Your task to perform on an android device: Open the map Image 0: 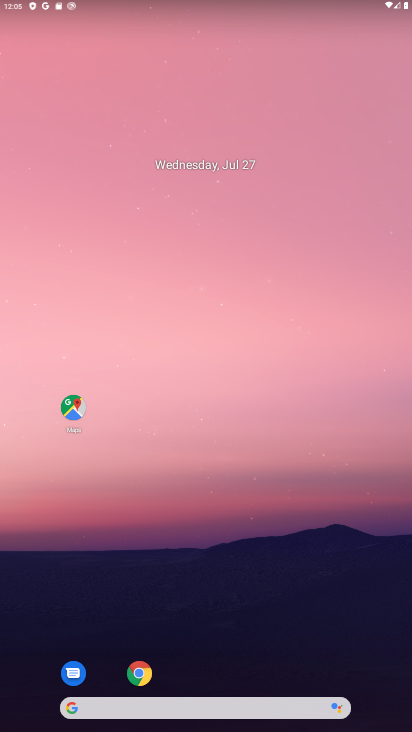
Step 0: click (69, 414)
Your task to perform on an android device: Open the map Image 1: 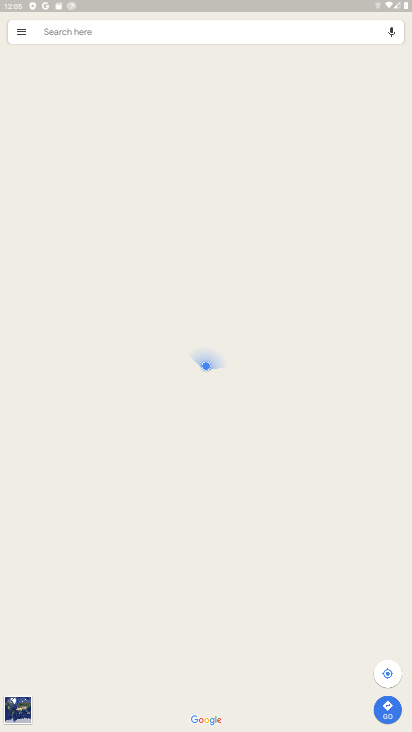
Step 1: task complete